Your task to perform on an android device: turn on location history Image 0: 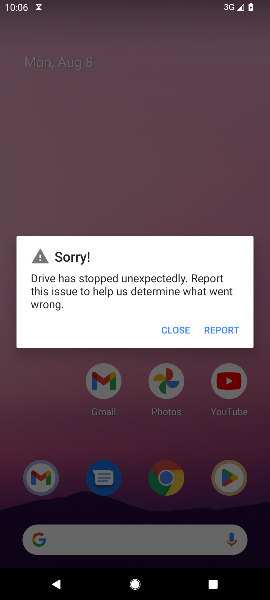
Step 0: press home button
Your task to perform on an android device: turn on location history Image 1: 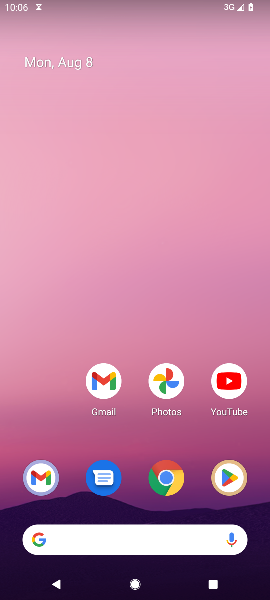
Step 1: drag from (135, 540) to (224, 195)
Your task to perform on an android device: turn on location history Image 2: 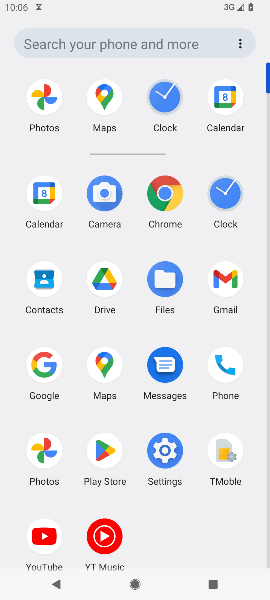
Step 2: click (163, 437)
Your task to perform on an android device: turn on location history Image 3: 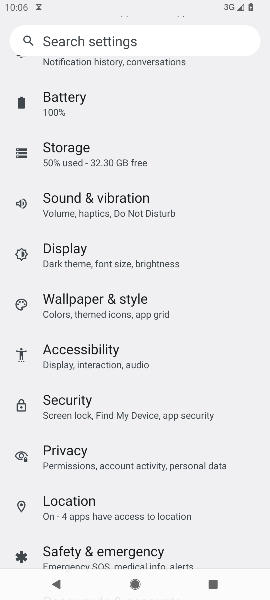
Step 3: drag from (171, 143) to (159, 401)
Your task to perform on an android device: turn on location history Image 4: 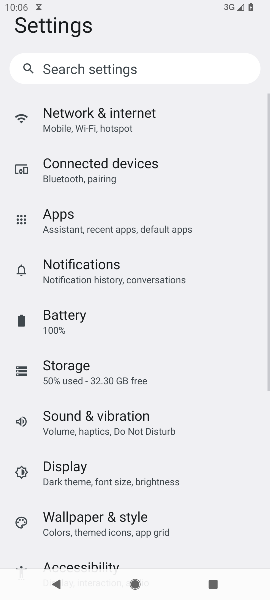
Step 4: drag from (149, 438) to (257, 56)
Your task to perform on an android device: turn on location history Image 5: 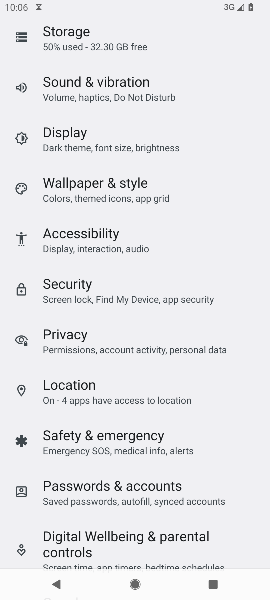
Step 5: click (104, 390)
Your task to perform on an android device: turn on location history Image 6: 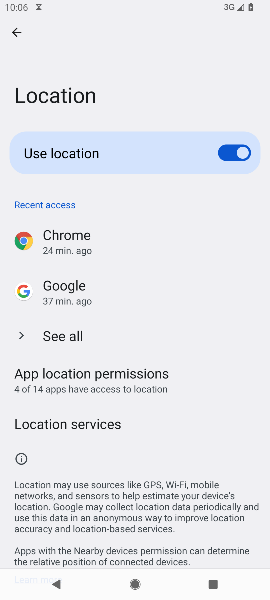
Step 6: click (76, 423)
Your task to perform on an android device: turn on location history Image 7: 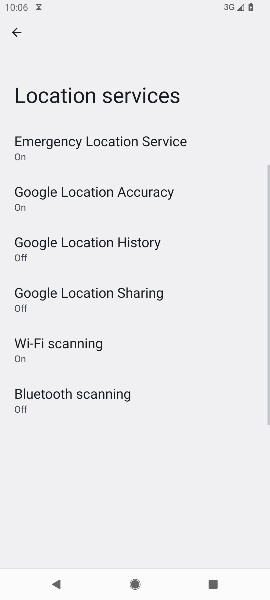
Step 7: click (95, 247)
Your task to perform on an android device: turn on location history Image 8: 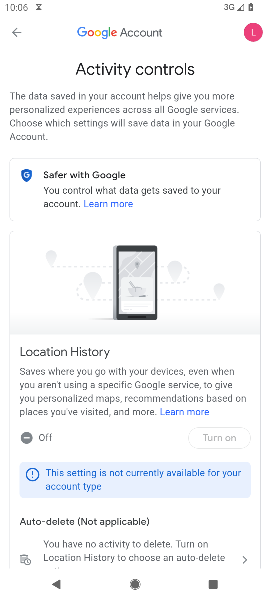
Step 8: task complete